Your task to perform on an android device: Go to internet settings Image 0: 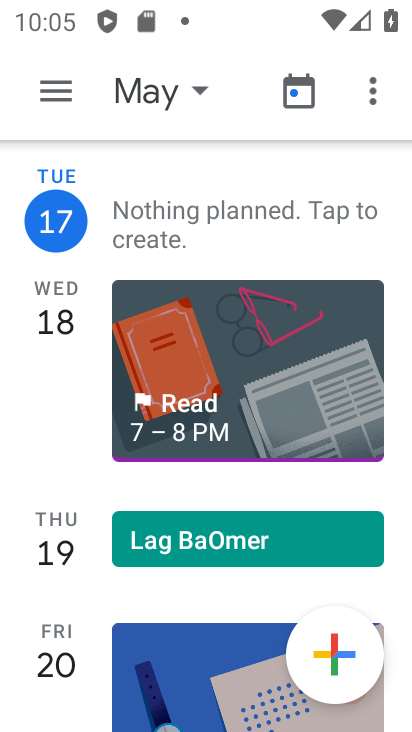
Step 0: press home button
Your task to perform on an android device: Go to internet settings Image 1: 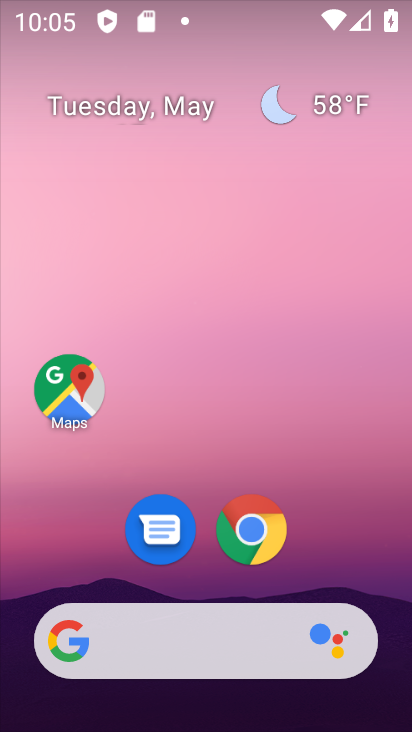
Step 1: drag from (83, 610) to (164, 131)
Your task to perform on an android device: Go to internet settings Image 2: 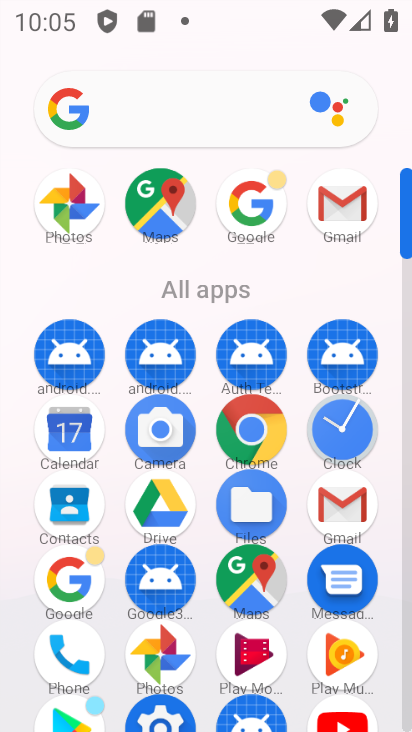
Step 2: drag from (212, 655) to (266, 397)
Your task to perform on an android device: Go to internet settings Image 3: 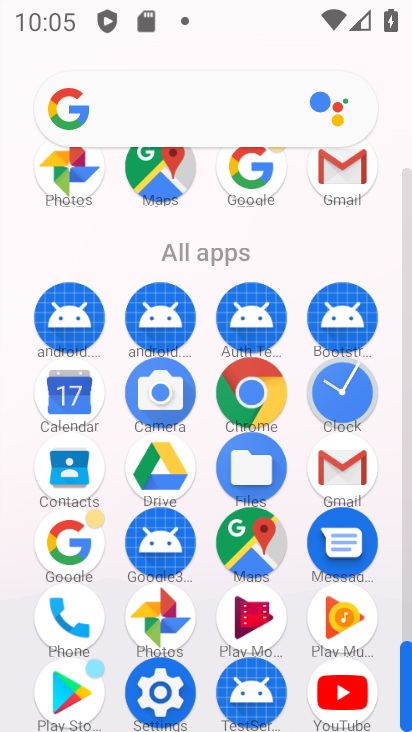
Step 3: click (154, 708)
Your task to perform on an android device: Go to internet settings Image 4: 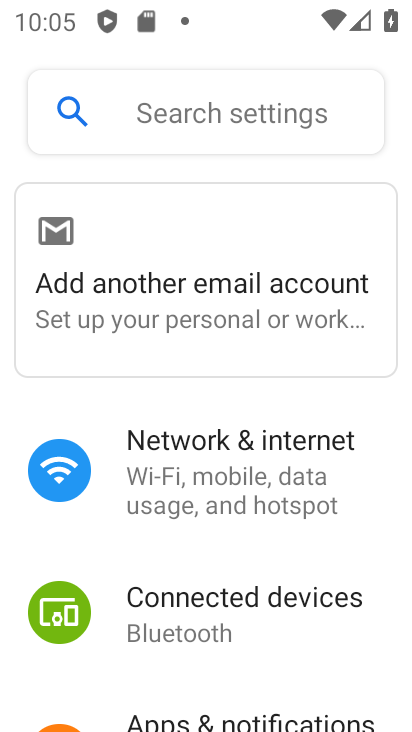
Step 4: click (233, 505)
Your task to perform on an android device: Go to internet settings Image 5: 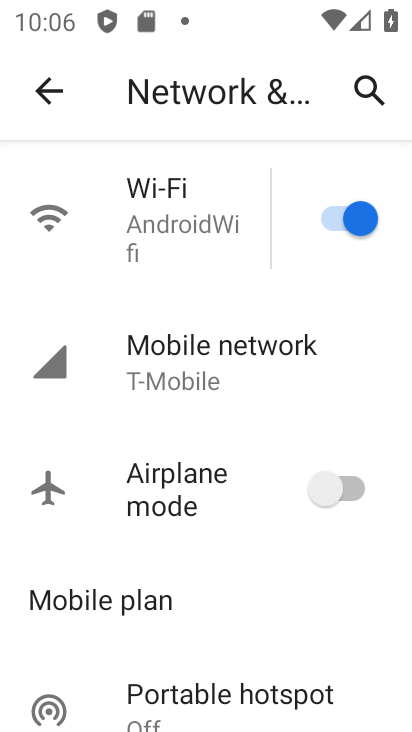
Step 5: click (243, 371)
Your task to perform on an android device: Go to internet settings Image 6: 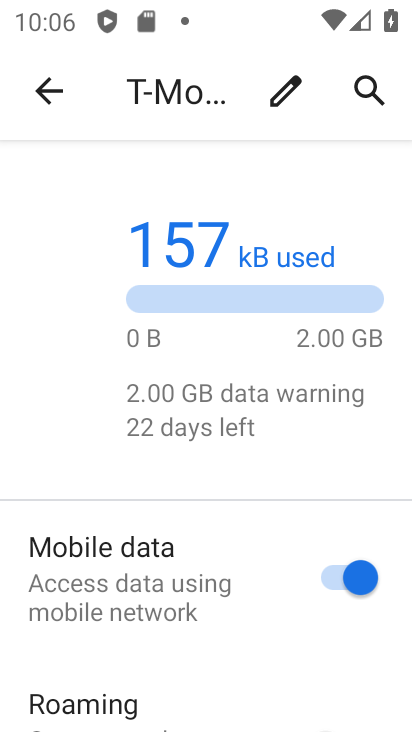
Step 6: task complete